Your task to perform on an android device: Add "apple airpods pro" to the cart on amazon, then select checkout. Image 0: 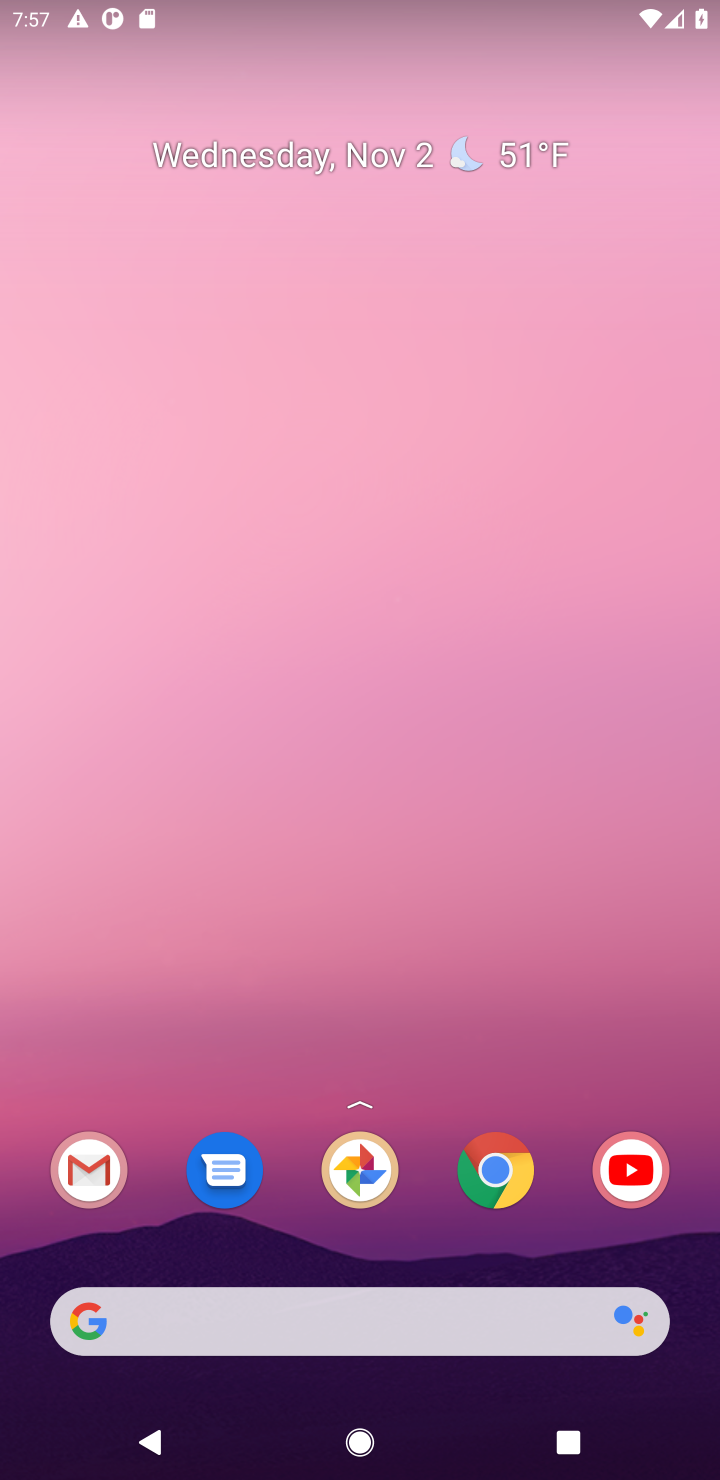
Step 0: click (511, 1194)
Your task to perform on an android device: Add "apple airpods pro" to the cart on amazon, then select checkout. Image 1: 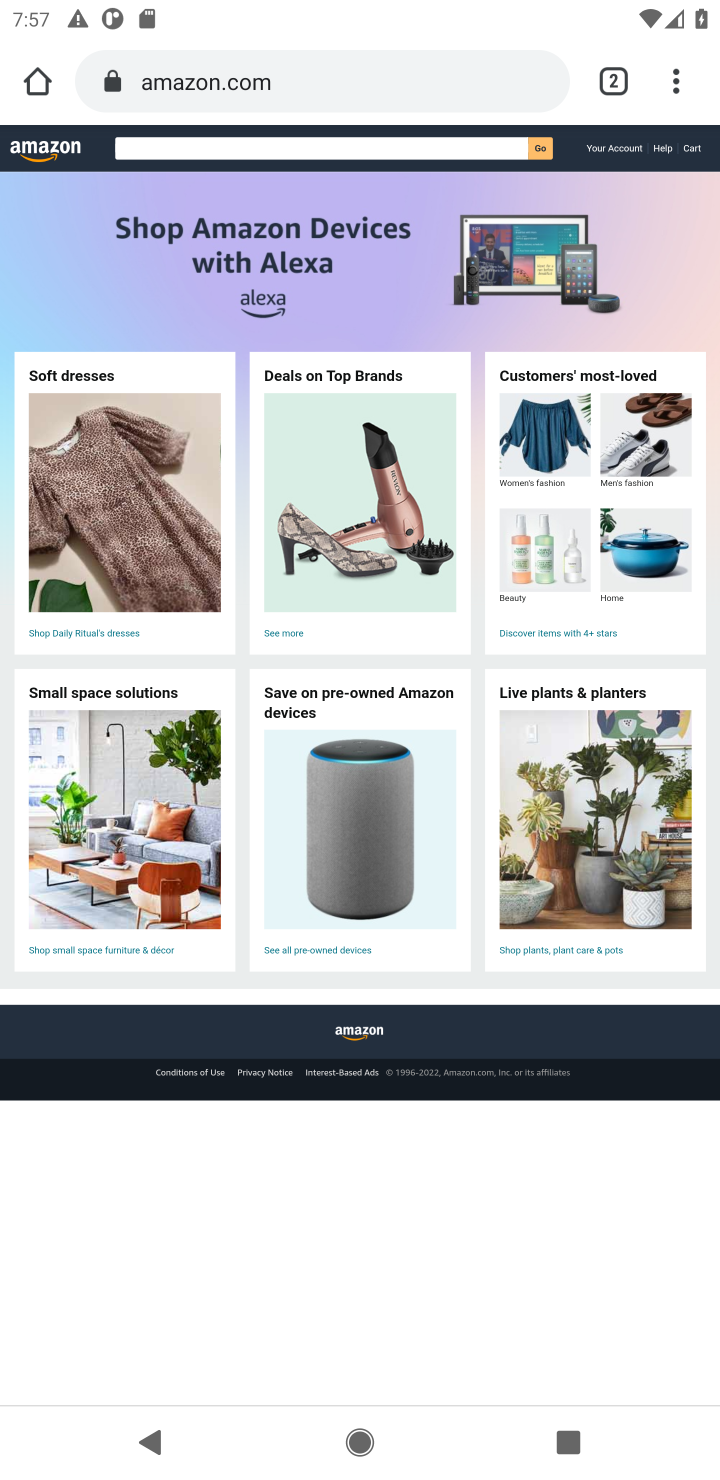
Step 1: click (282, 62)
Your task to perform on an android device: Add "apple airpods pro" to the cart on amazon, then select checkout. Image 2: 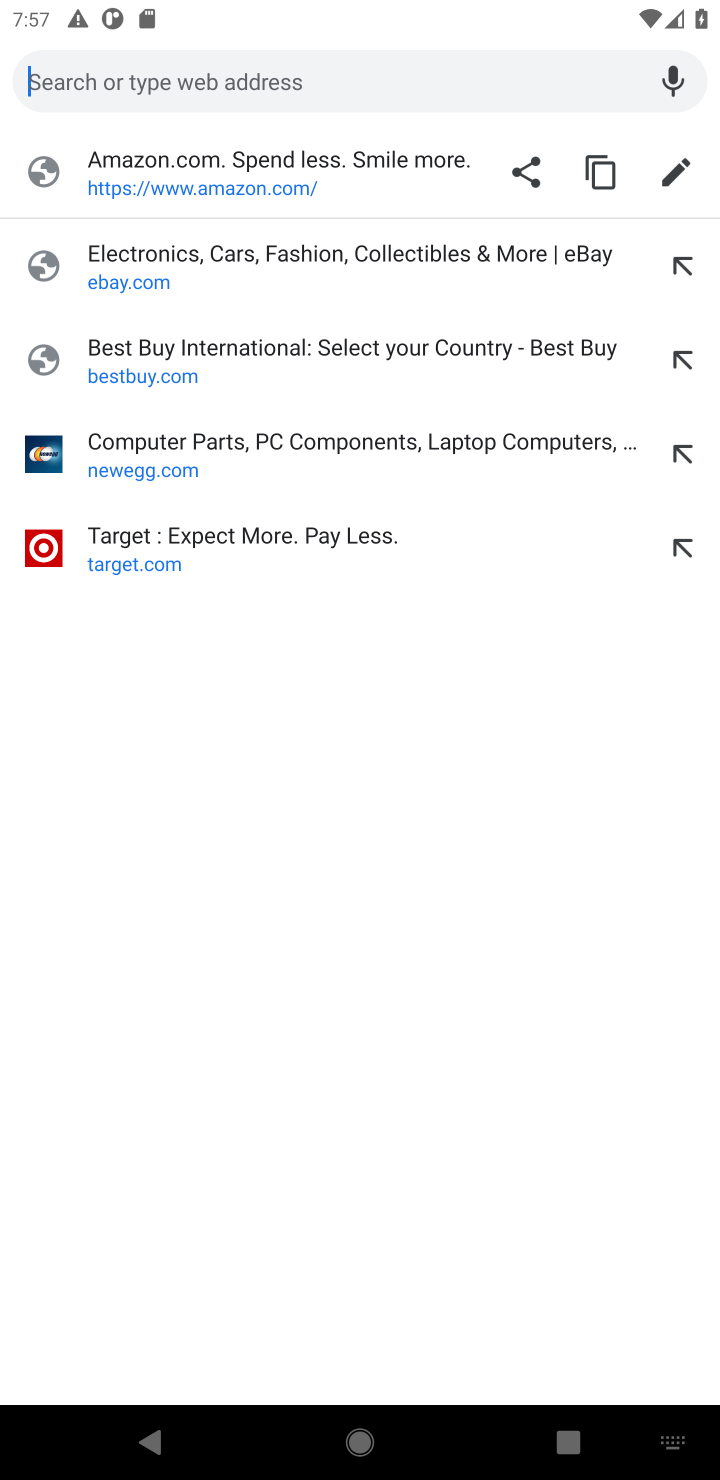
Step 2: type "amazon"
Your task to perform on an android device: Add "apple airpods pro" to the cart on amazon, then select checkout. Image 3: 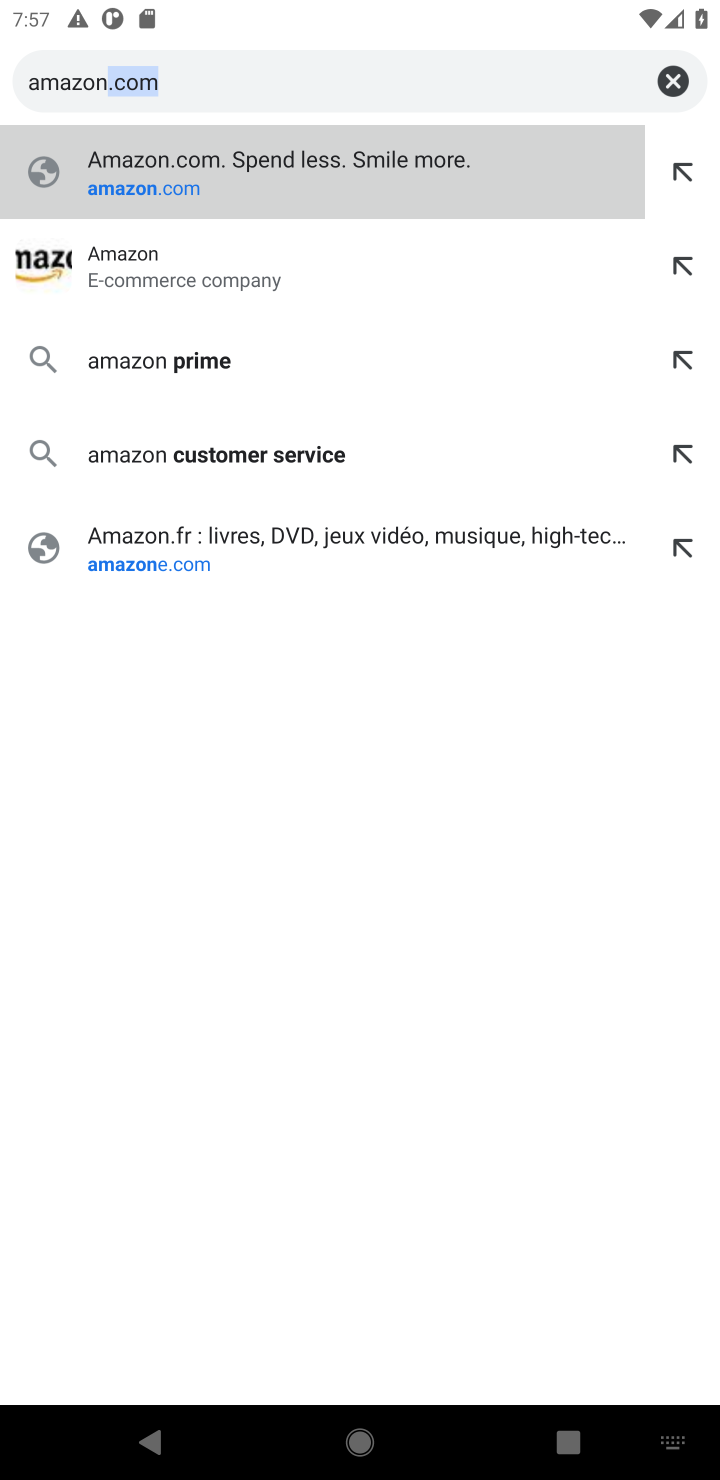
Step 3: type ""
Your task to perform on an android device: Add "apple airpods pro" to the cart on amazon, then select checkout. Image 4: 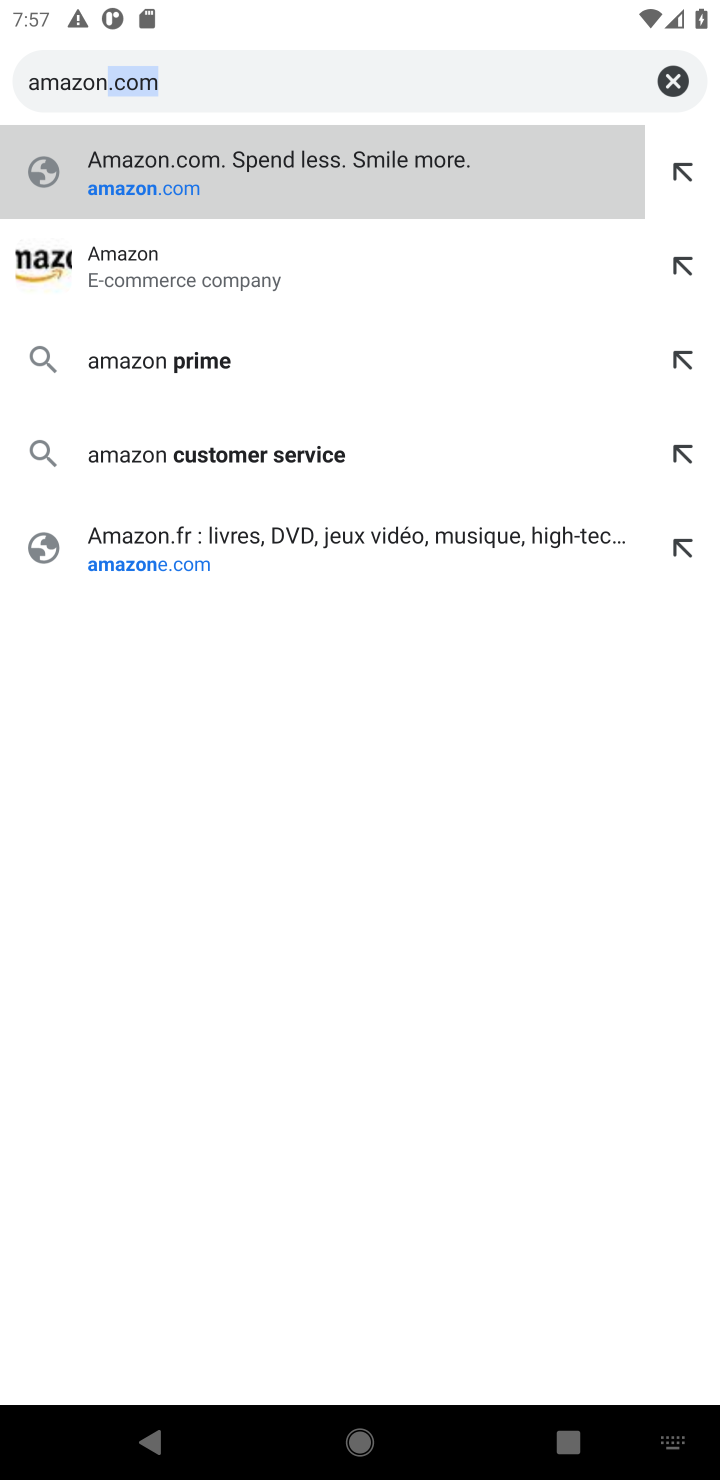
Step 4: press enter
Your task to perform on an android device: Add "apple airpods pro" to the cart on amazon, then select checkout. Image 5: 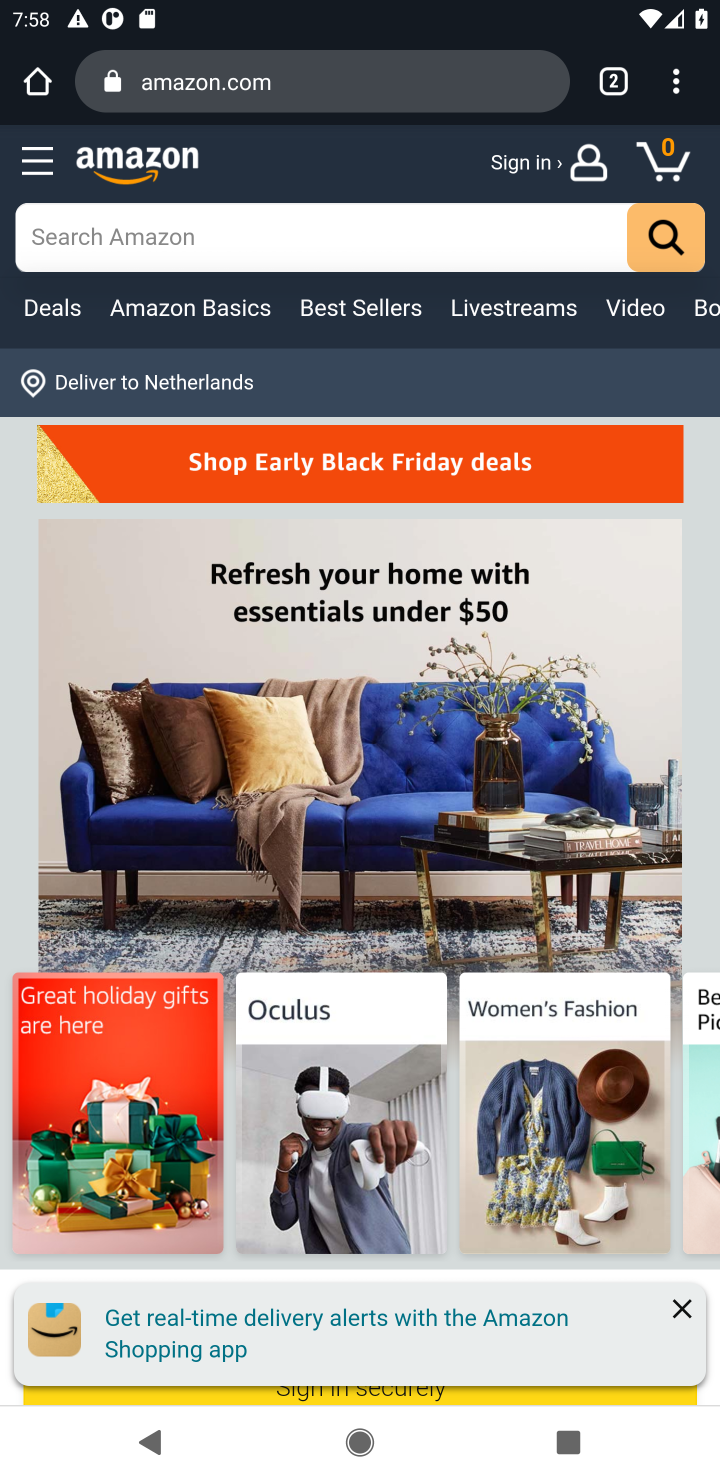
Step 5: click (309, 249)
Your task to perform on an android device: Add "apple airpods pro" to the cart on amazon, then select checkout. Image 6: 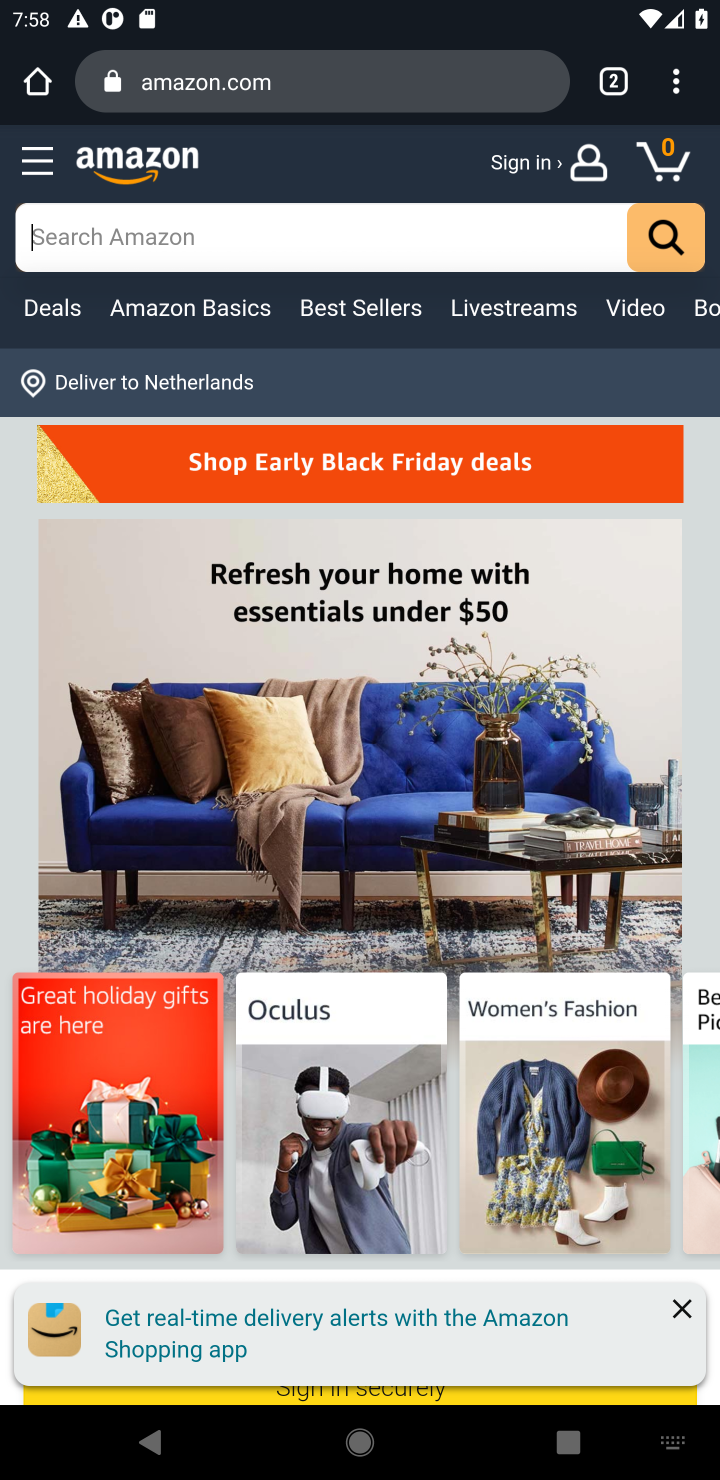
Step 6: type "apple airpods pro"
Your task to perform on an android device: Add "apple airpods pro" to the cart on amazon, then select checkout. Image 7: 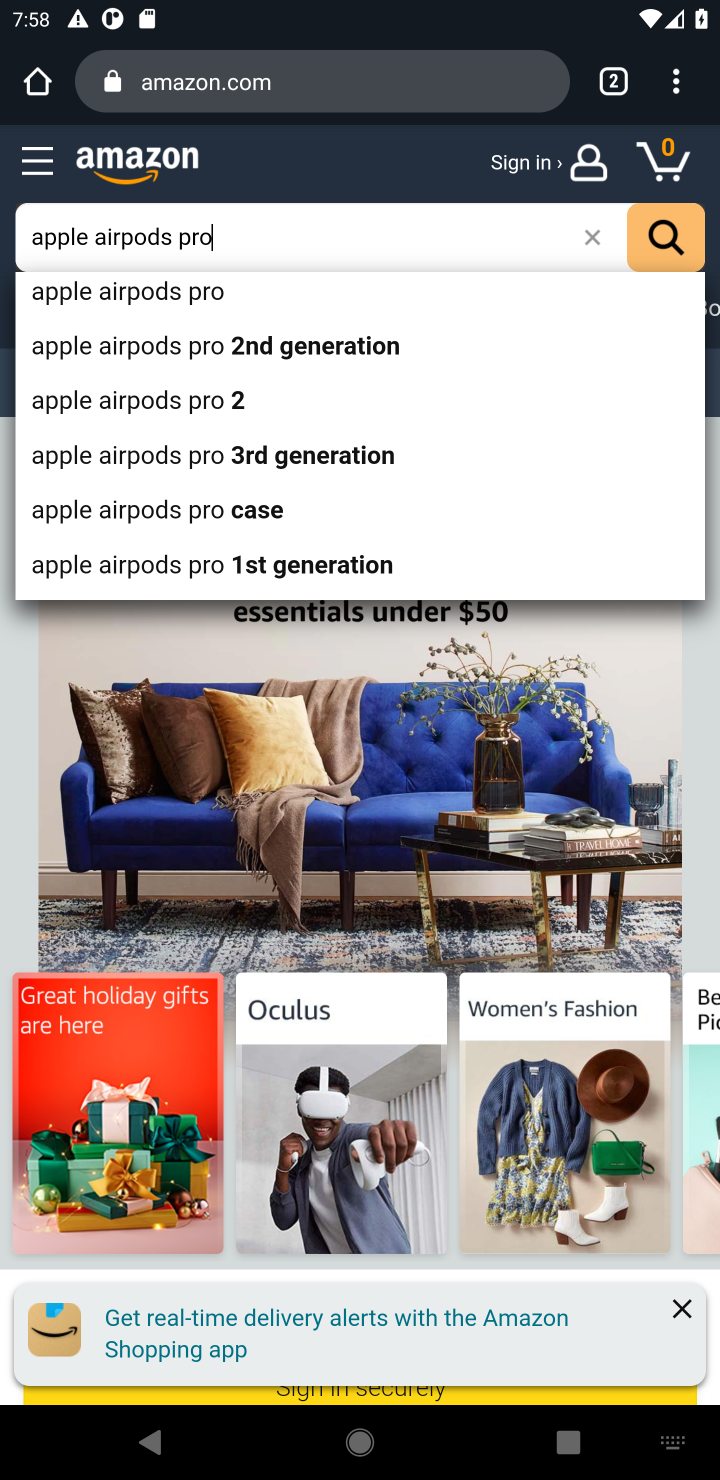
Step 7: press enter
Your task to perform on an android device: Add "apple airpods pro" to the cart on amazon, then select checkout. Image 8: 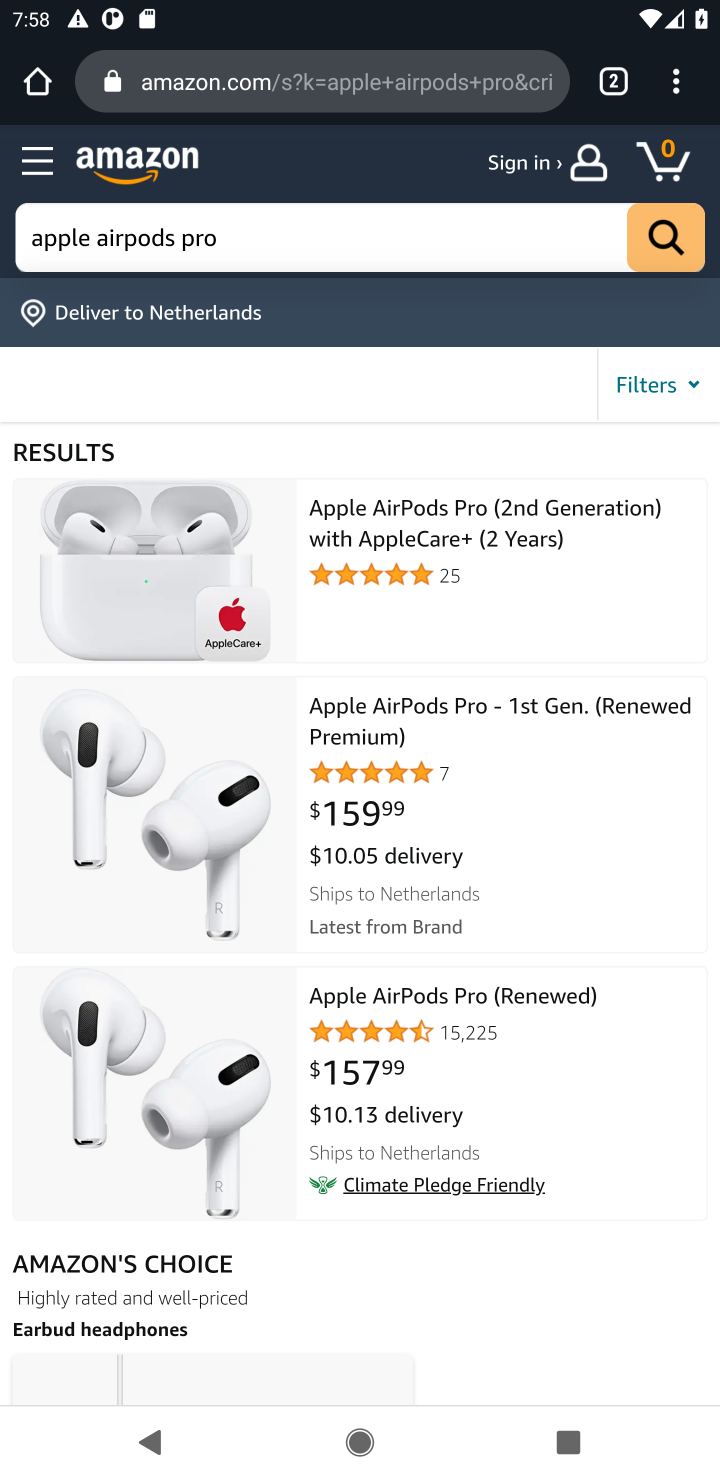
Step 8: click (427, 547)
Your task to perform on an android device: Add "apple airpods pro" to the cart on amazon, then select checkout. Image 9: 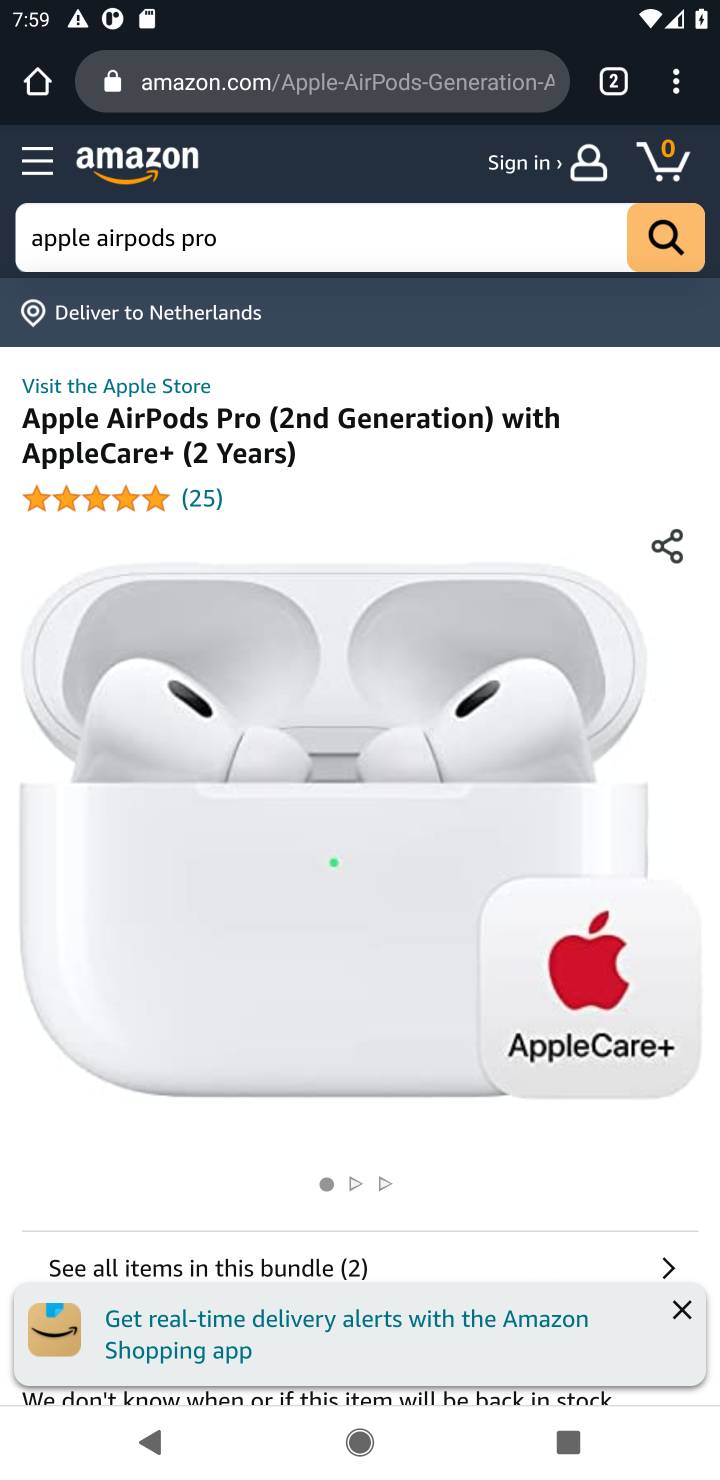
Step 9: drag from (278, 1143) to (308, 668)
Your task to perform on an android device: Add "apple airpods pro" to the cart on amazon, then select checkout. Image 10: 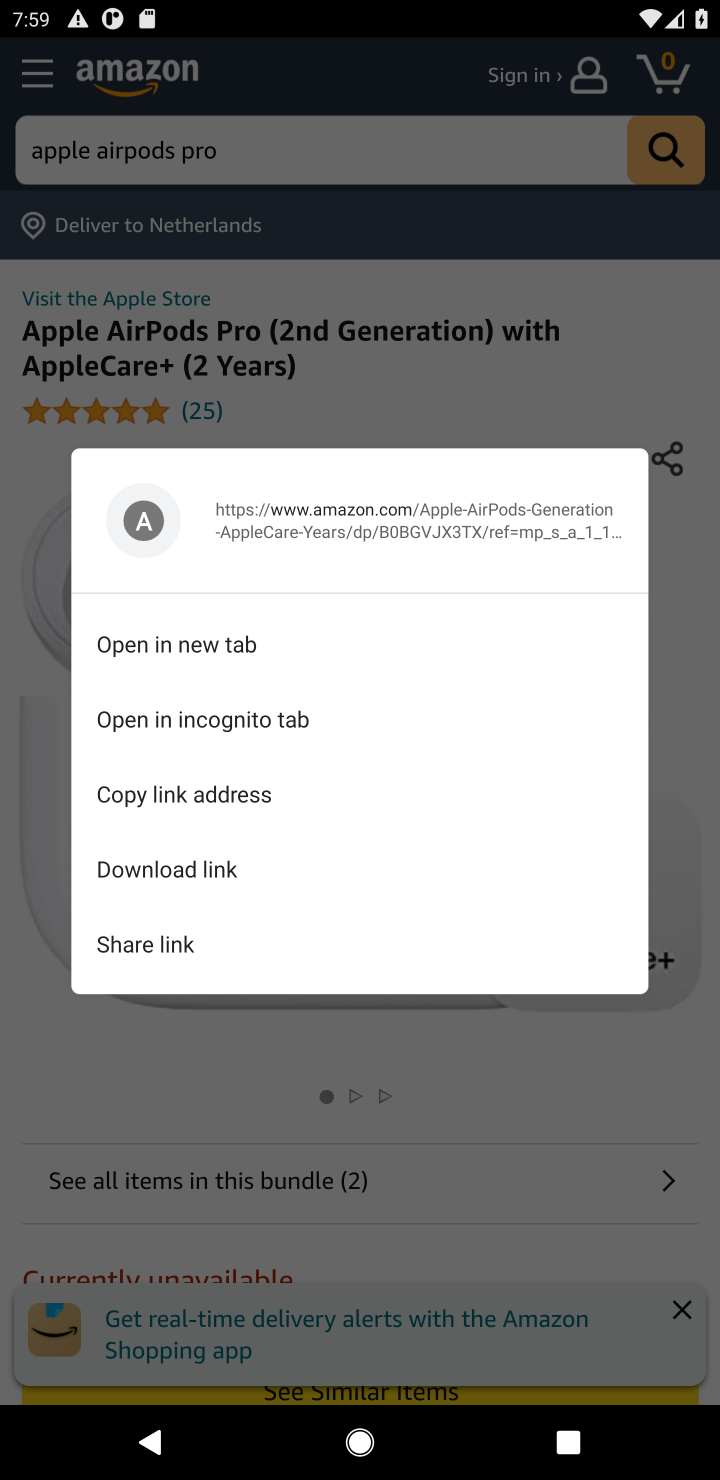
Step 10: click (375, 1127)
Your task to perform on an android device: Add "apple airpods pro" to the cart on amazon, then select checkout. Image 11: 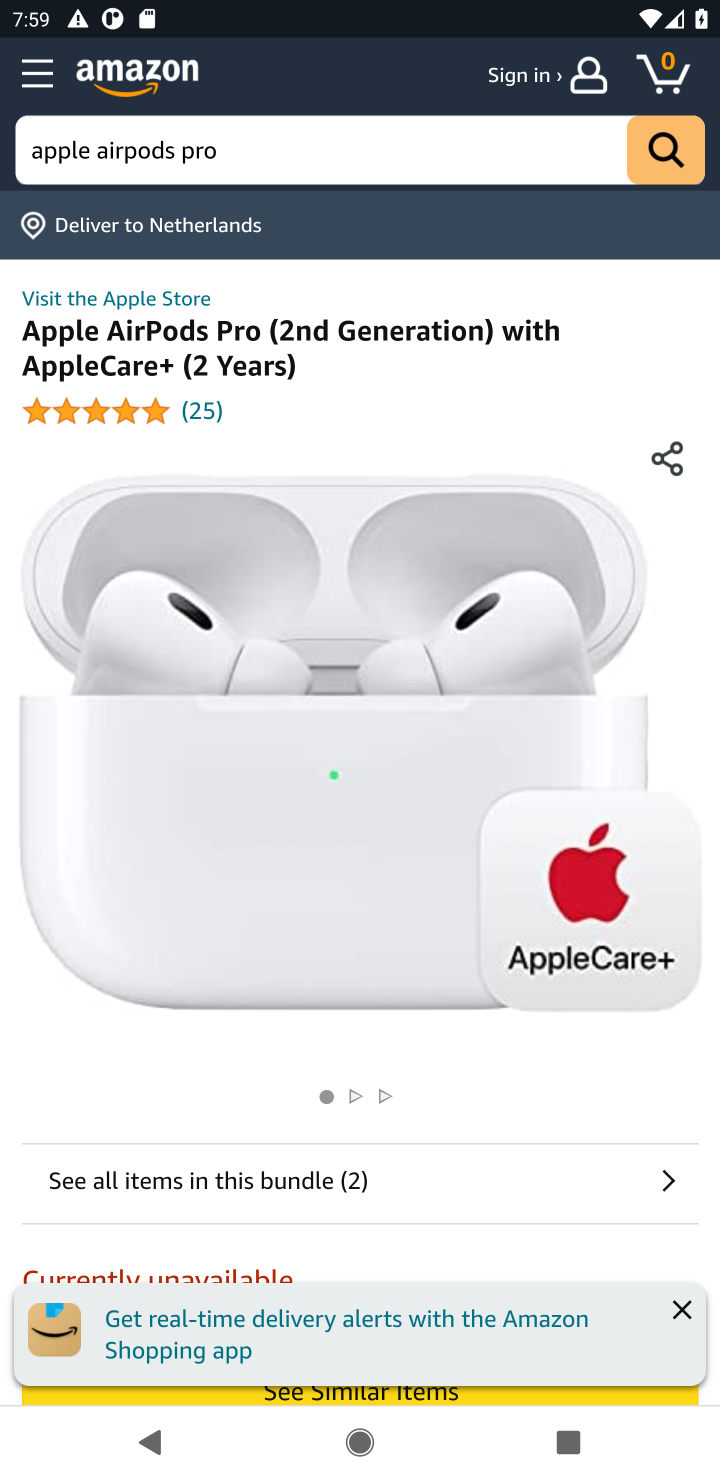
Step 11: drag from (375, 1127) to (349, 449)
Your task to perform on an android device: Add "apple airpods pro" to the cart on amazon, then select checkout. Image 12: 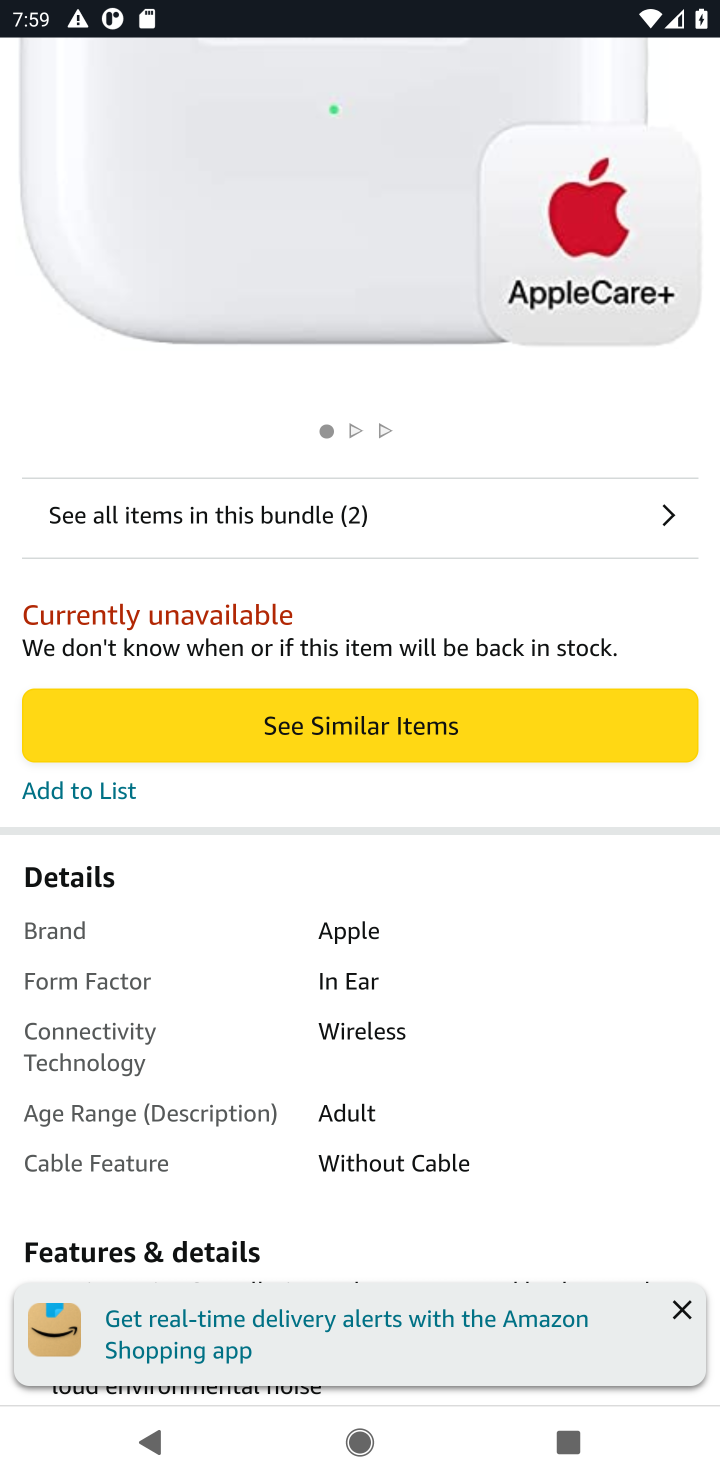
Step 12: press back button
Your task to perform on an android device: Add "apple airpods pro" to the cart on amazon, then select checkout. Image 13: 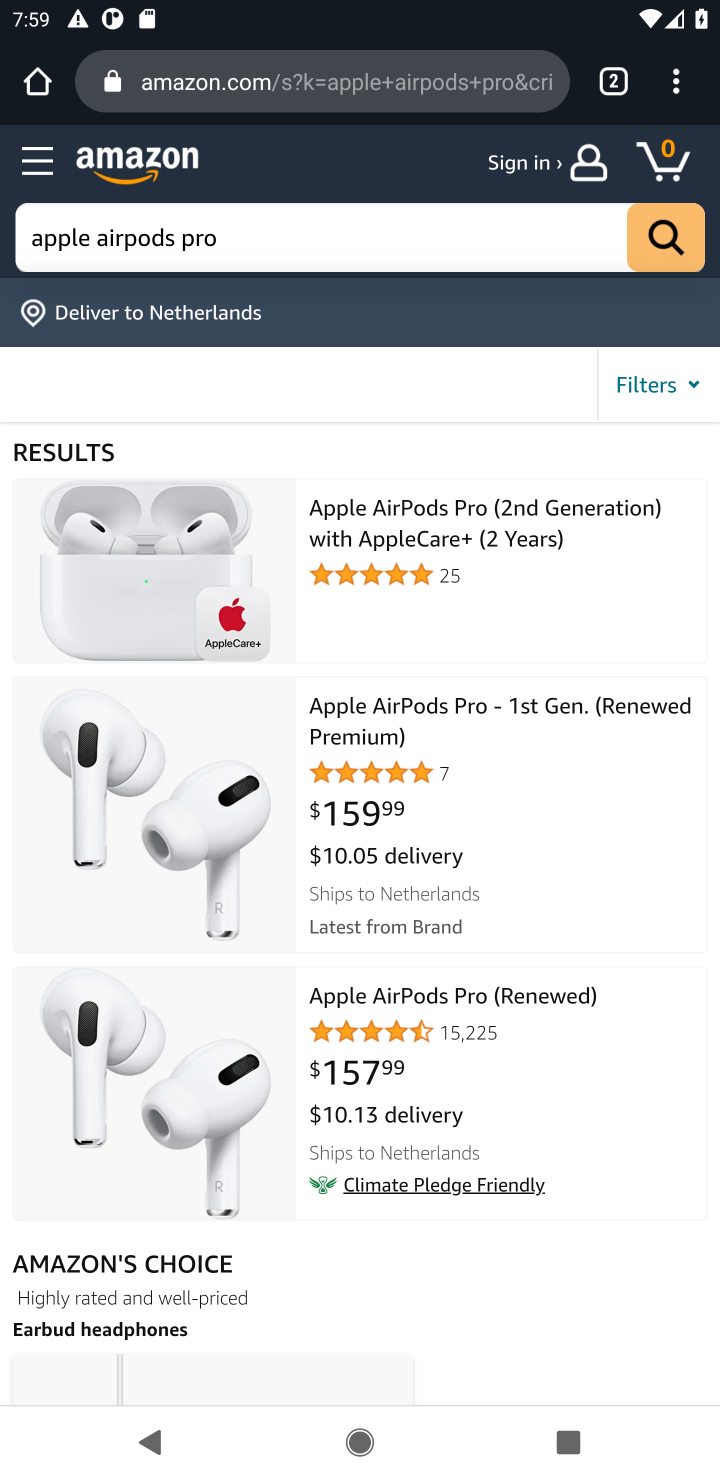
Step 13: click (303, 735)
Your task to perform on an android device: Add "apple airpods pro" to the cart on amazon, then select checkout. Image 14: 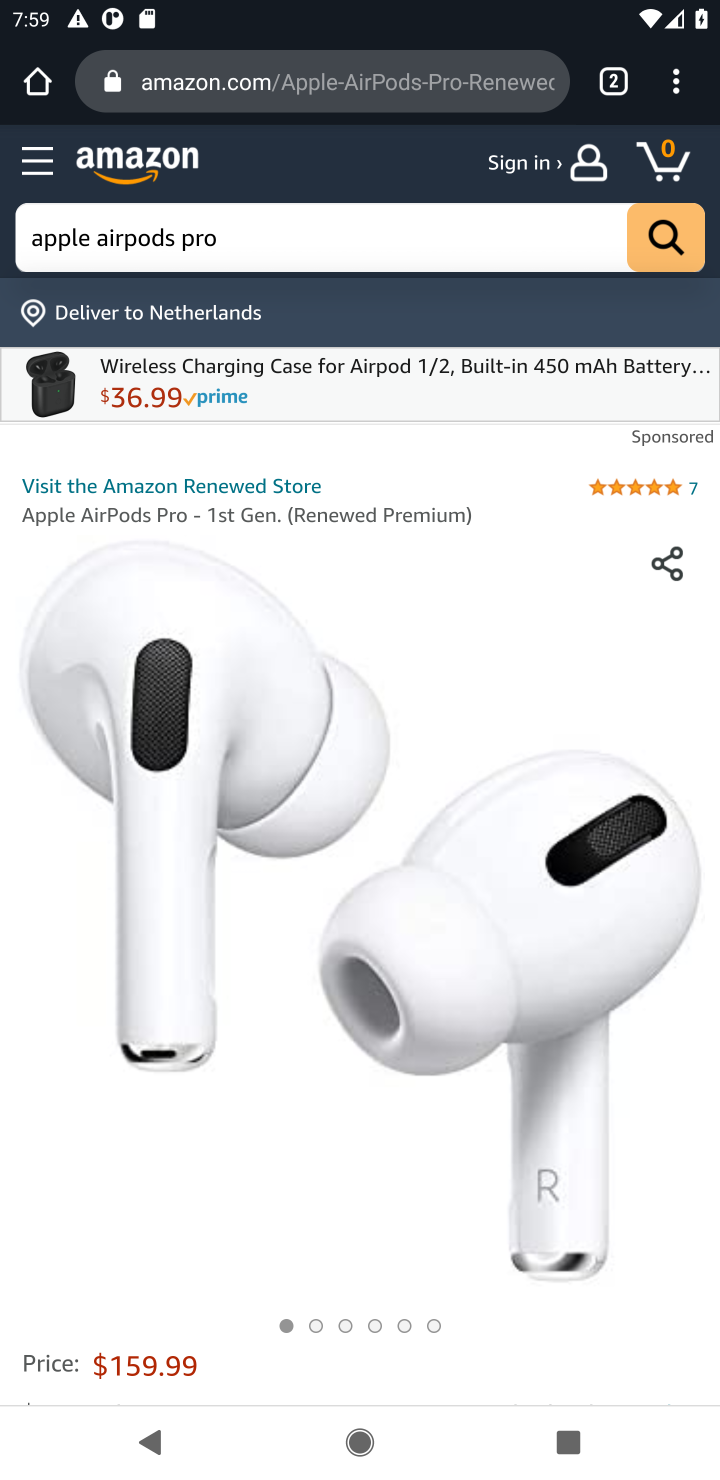
Step 14: drag from (207, 1283) to (224, 840)
Your task to perform on an android device: Add "apple airpods pro" to the cart on amazon, then select checkout. Image 15: 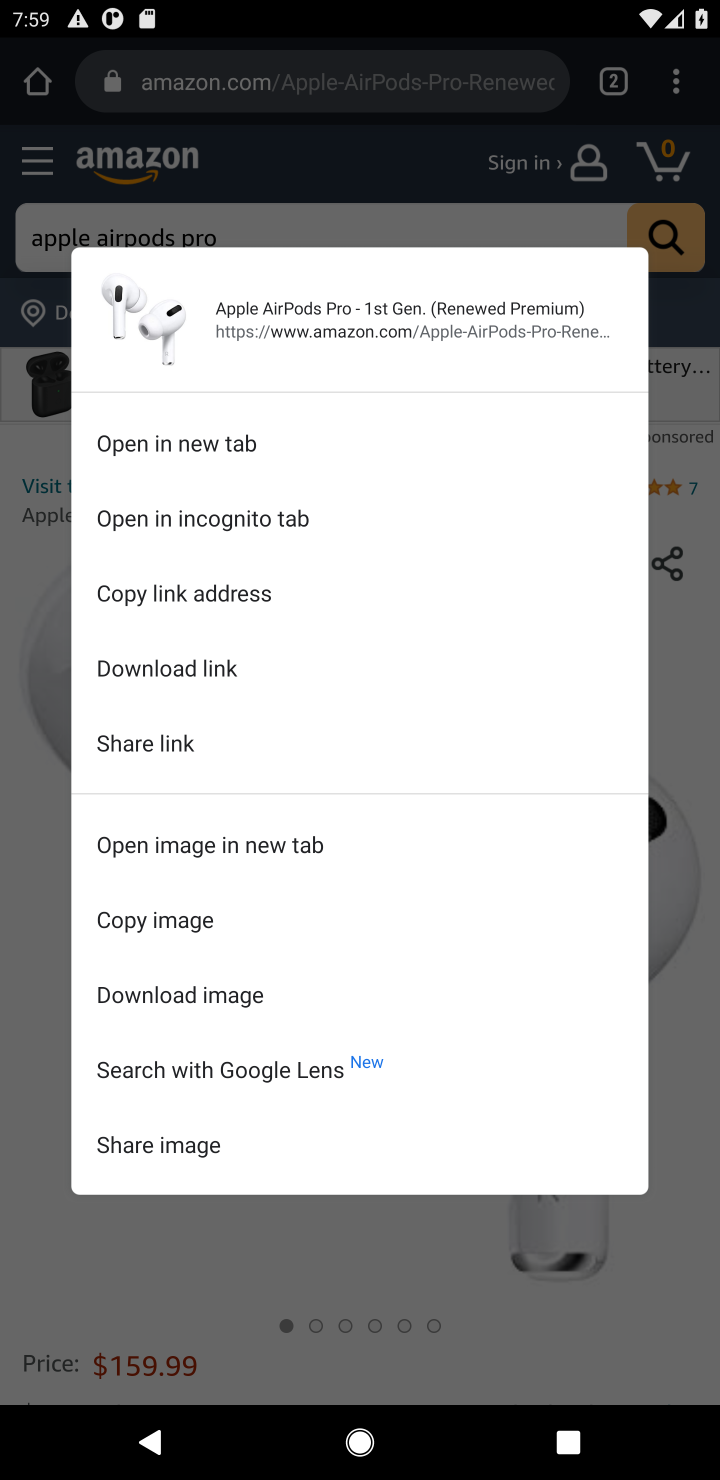
Step 15: click (642, 131)
Your task to perform on an android device: Add "apple airpods pro" to the cart on amazon, then select checkout. Image 16: 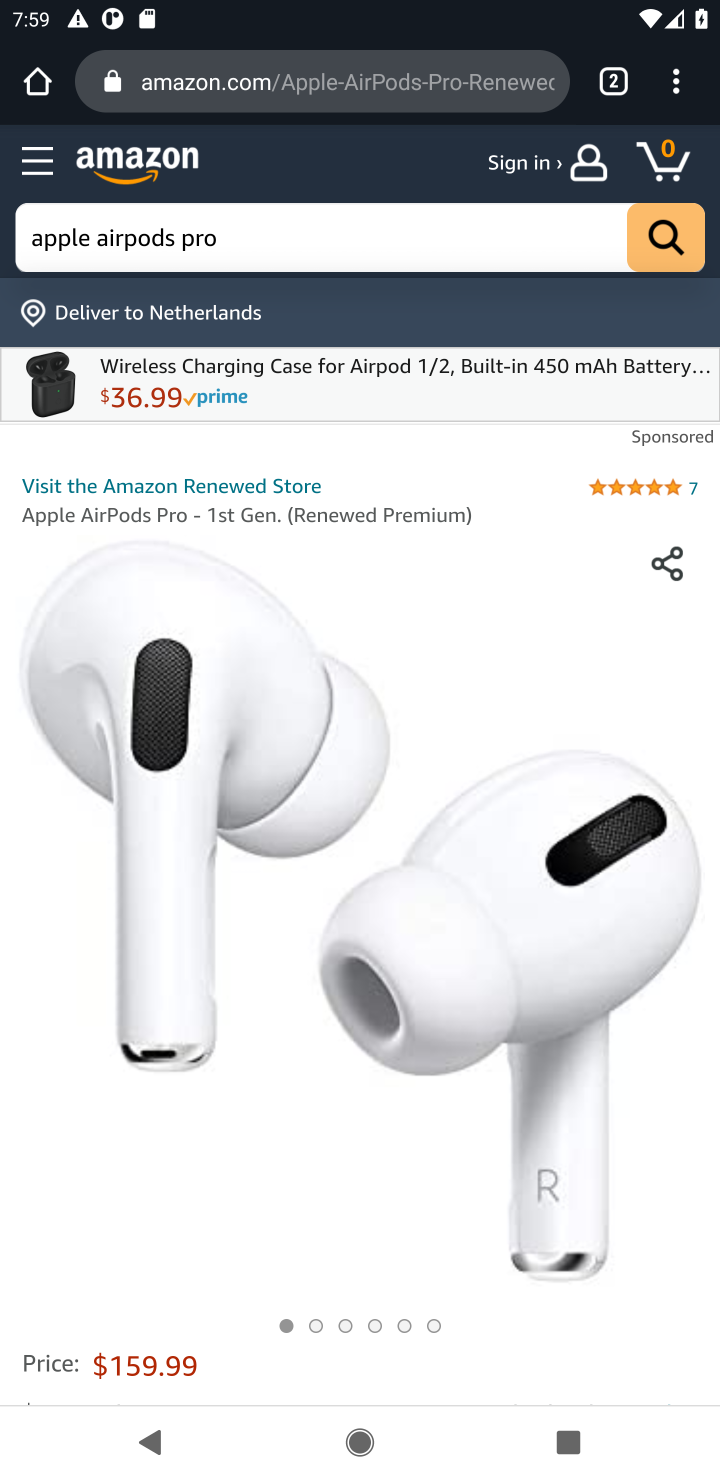
Step 16: drag from (482, 1117) to (291, 406)
Your task to perform on an android device: Add "apple airpods pro" to the cart on amazon, then select checkout. Image 17: 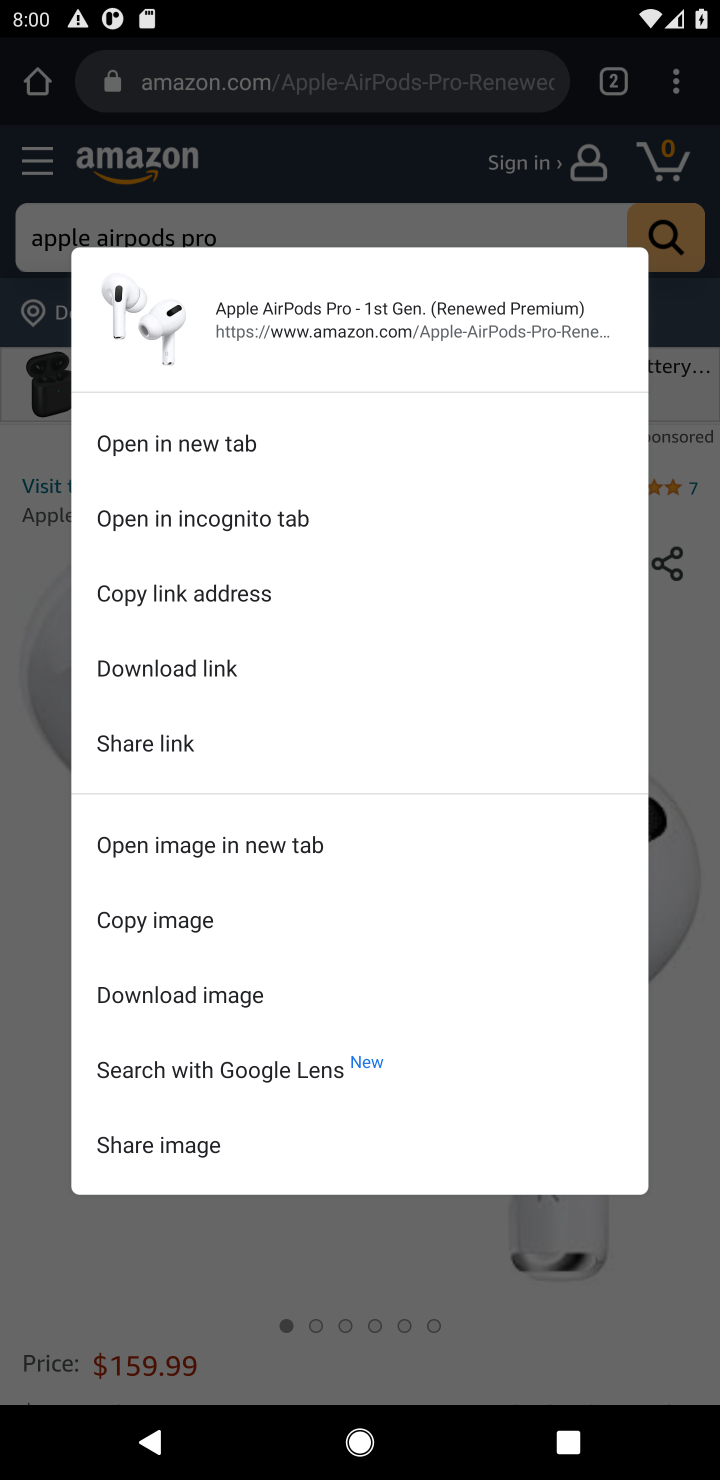
Step 17: click (704, 485)
Your task to perform on an android device: Add "apple airpods pro" to the cart on amazon, then select checkout. Image 18: 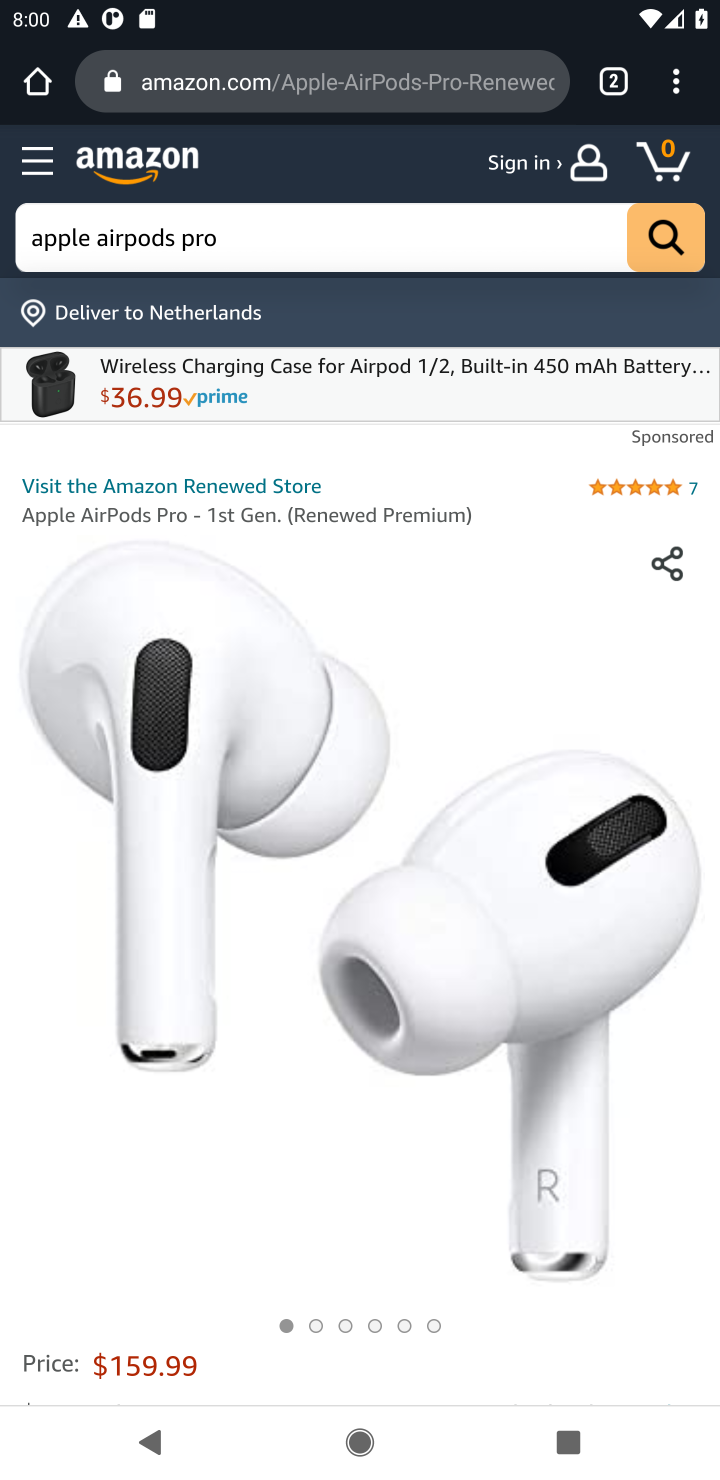
Step 18: drag from (262, 1035) to (308, 320)
Your task to perform on an android device: Add "apple airpods pro" to the cart on amazon, then select checkout. Image 19: 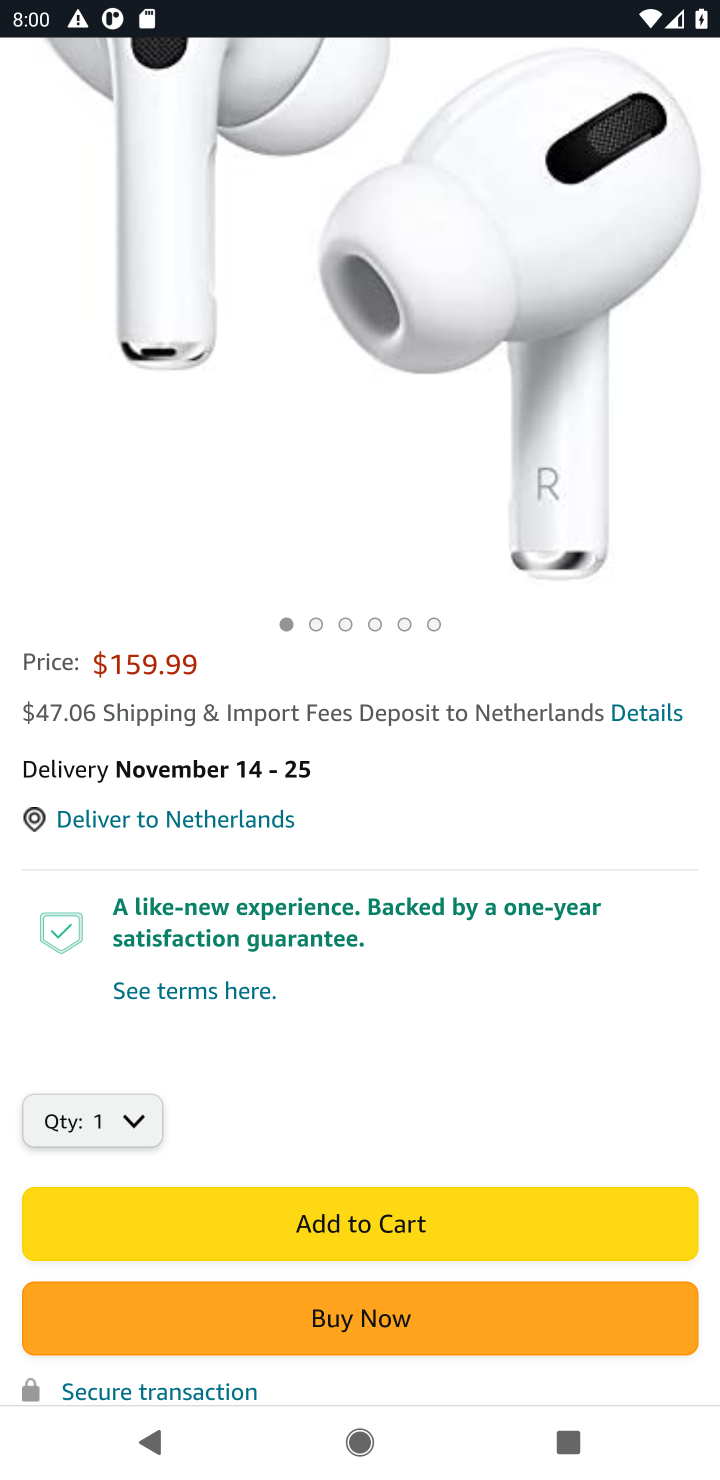
Step 19: click (425, 1198)
Your task to perform on an android device: Add "apple airpods pro" to the cart on amazon, then select checkout. Image 20: 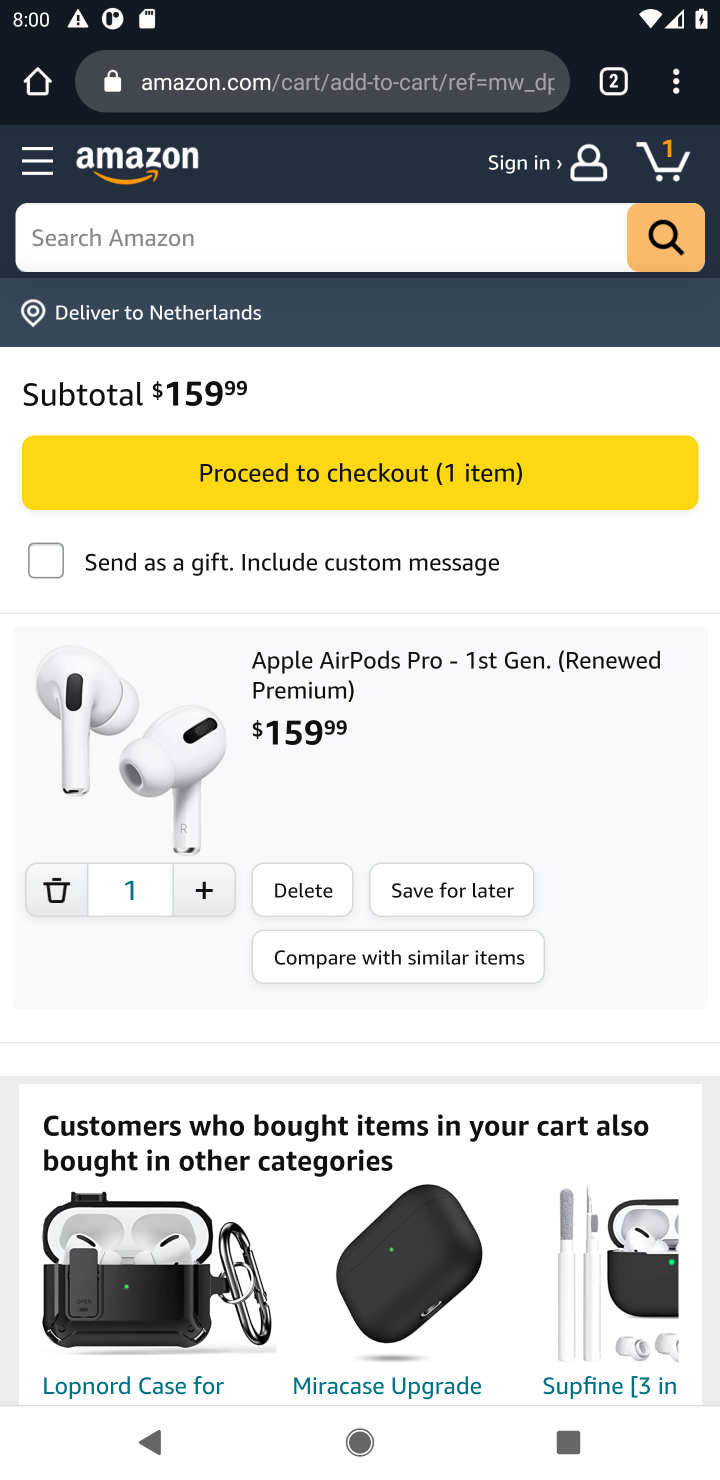
Step 20: click (475, 462)
Your task to perform on an android device: Add "apple airpods pro" to the cart on amazon, then select checkout. Image 21: 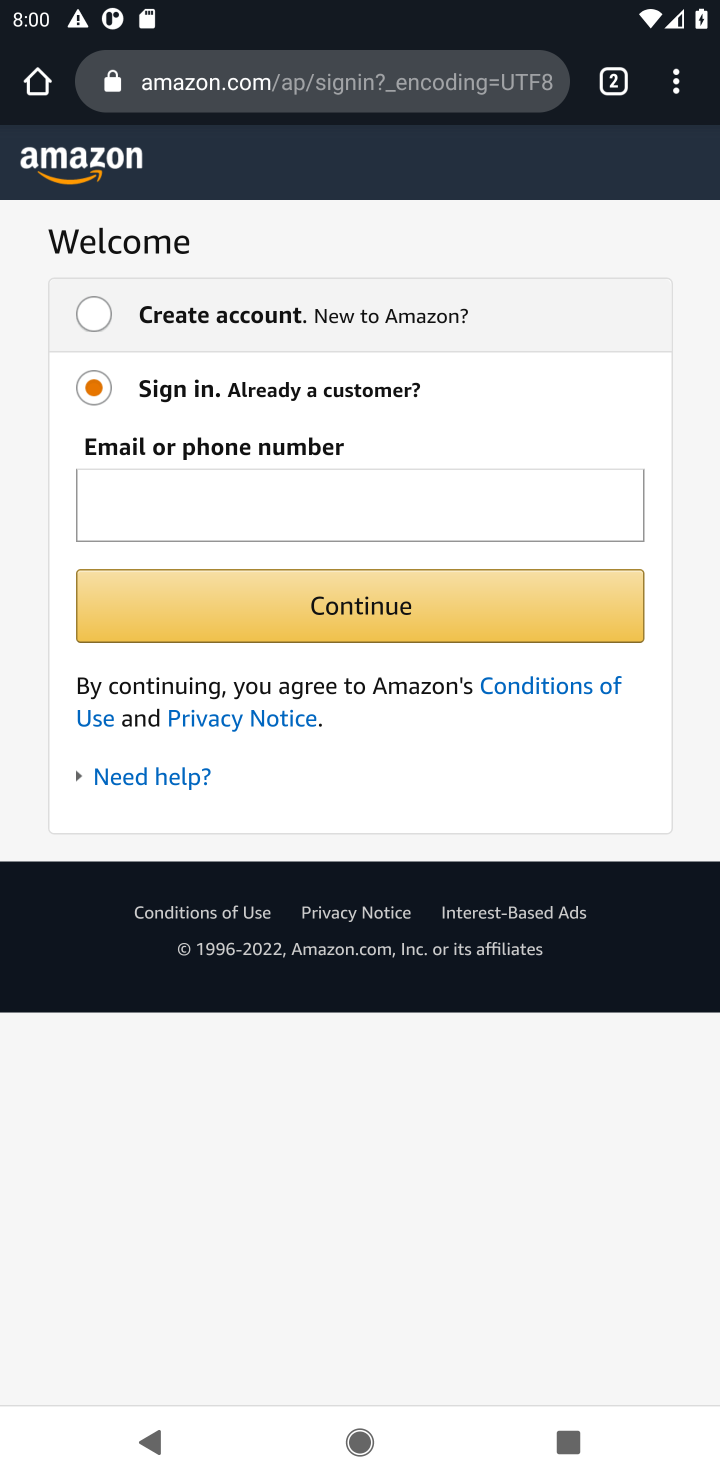
Step 21: task complete